Your task to perform on an android device: Open the stopwatch Image 0: 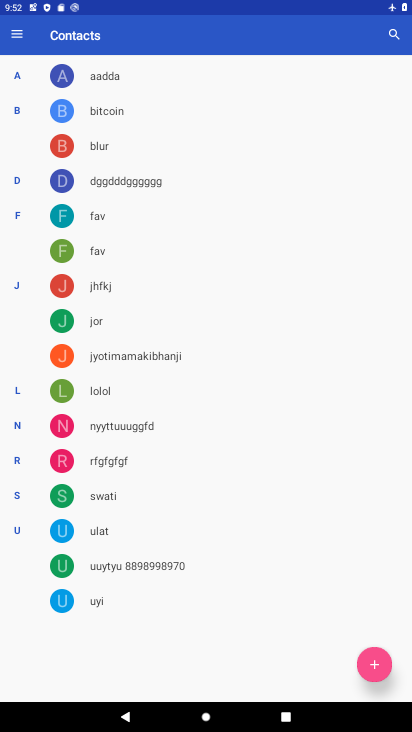
Step 0: press home button
Your task to perform on an android device: Open the stopwatch Image 1: 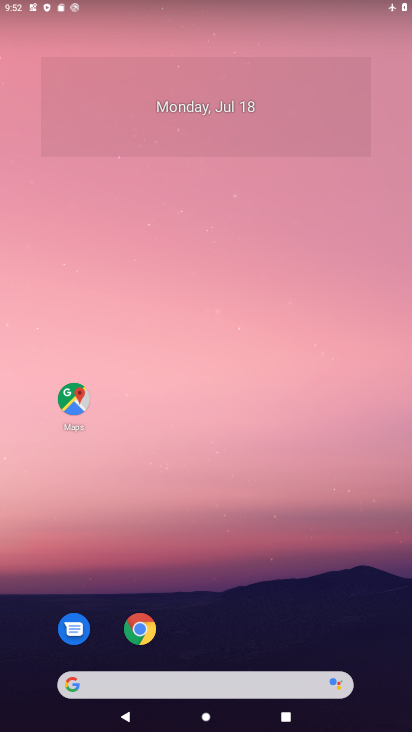
Step 1: drag from (352, 645) to (188, 232)
Your task to perform on an android device: Open the stopwatch Image 2: 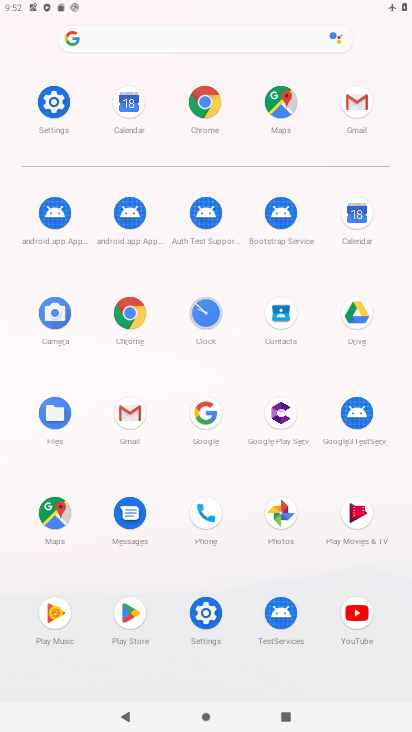
Step 2: click (210, 310)
Your task to perform on an android device: Open the stopwatch Image 3: 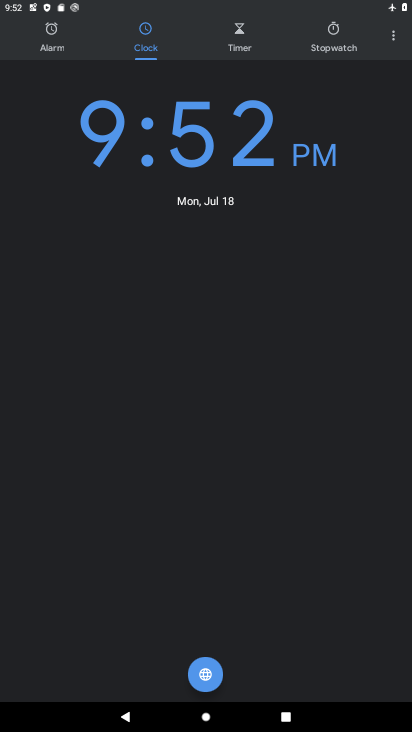
Step 3: click (339, 42)
Your task to perform on an android device: Open the stopwatch Image 4: 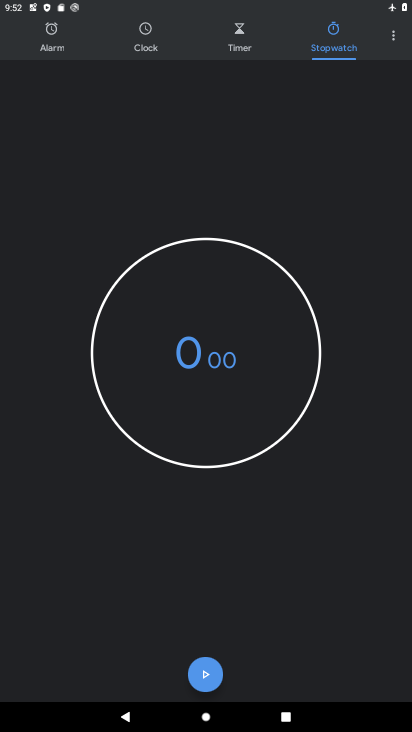
Step 4: task complete